Your task to perform on an android device: Go to battery settings Image 0: 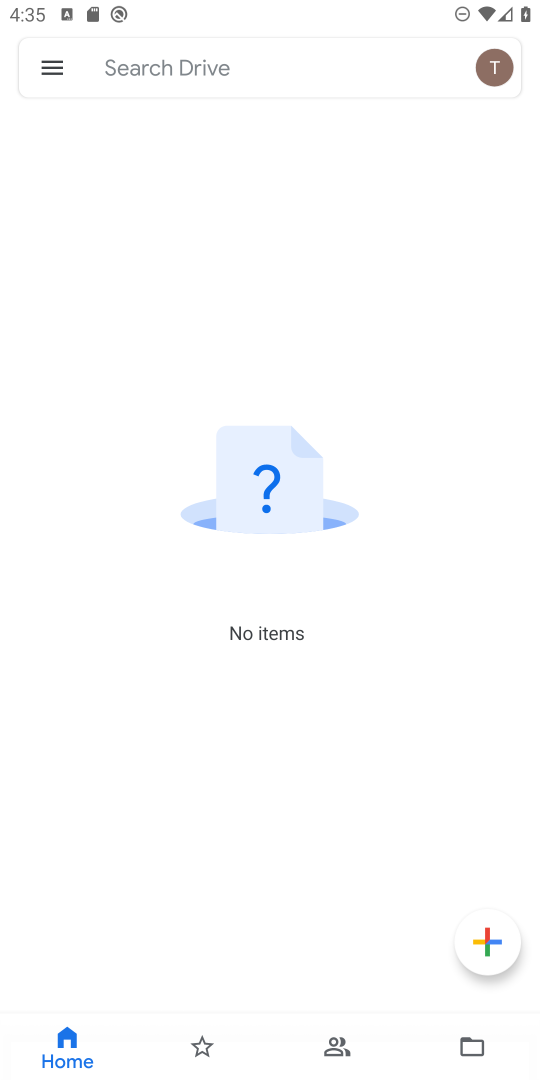
Step 0: press home button
Your task to perform on an android device: Go to battery settings Image 1: 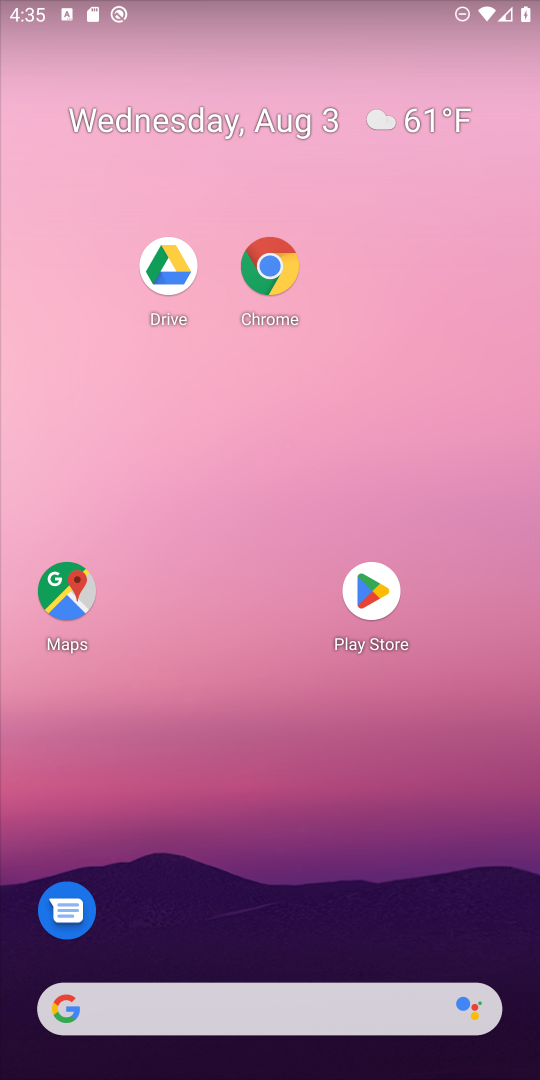
Step 1: drag from (226, 1006) to (422, 1)
Your task to perform on an android device: Go to battery settings Image 2: 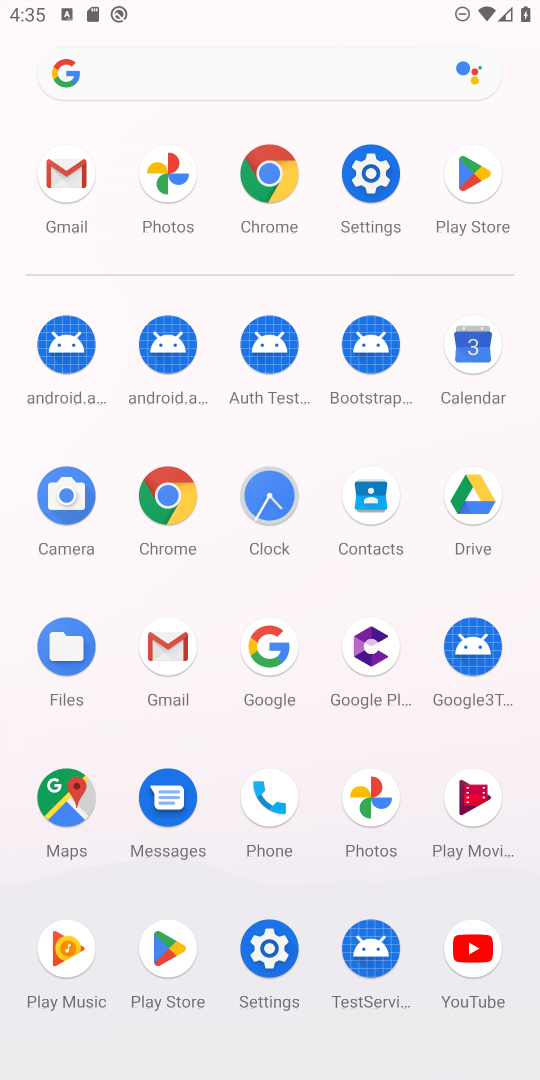
Step 2: click (368, 174)
Your task to perform on an android device: Go to battery settings Image 3: 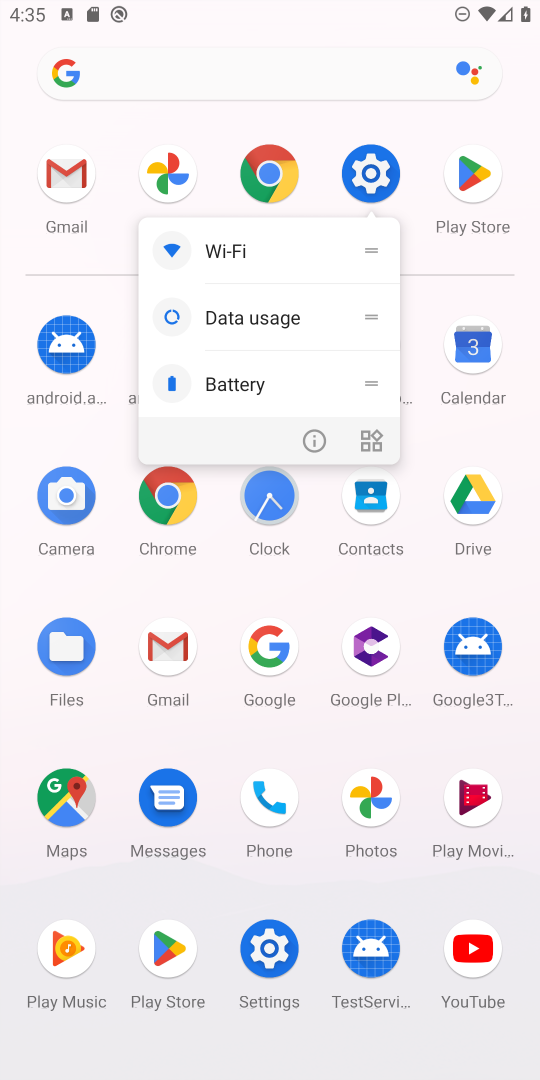
Step 3: click (368, 174)
Your task to perform on an android device: Go to battery settings Image 4: 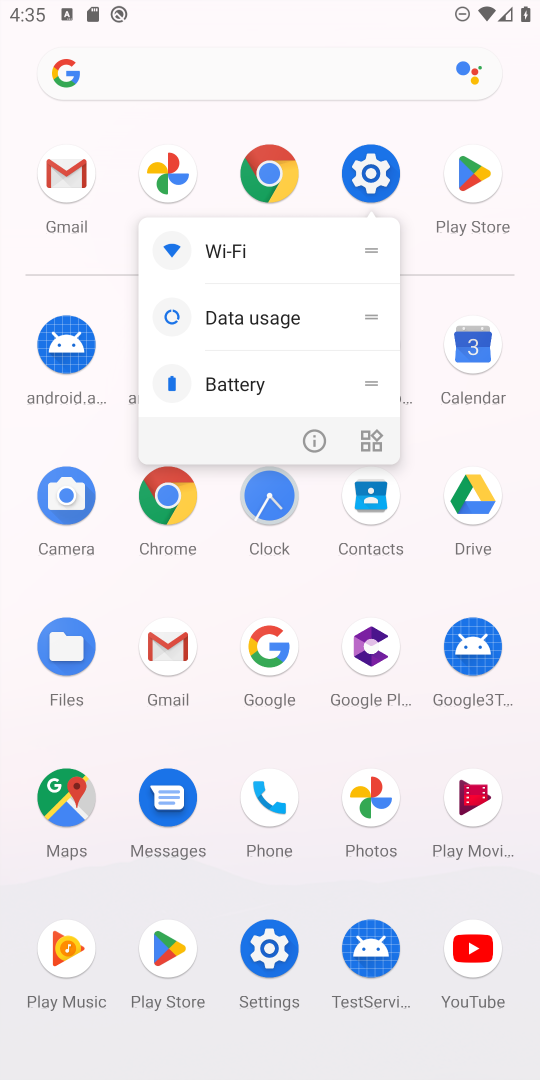
Step 4: click (368, 174)
Your task to perform on an android device: Go to battery settings Image 5: 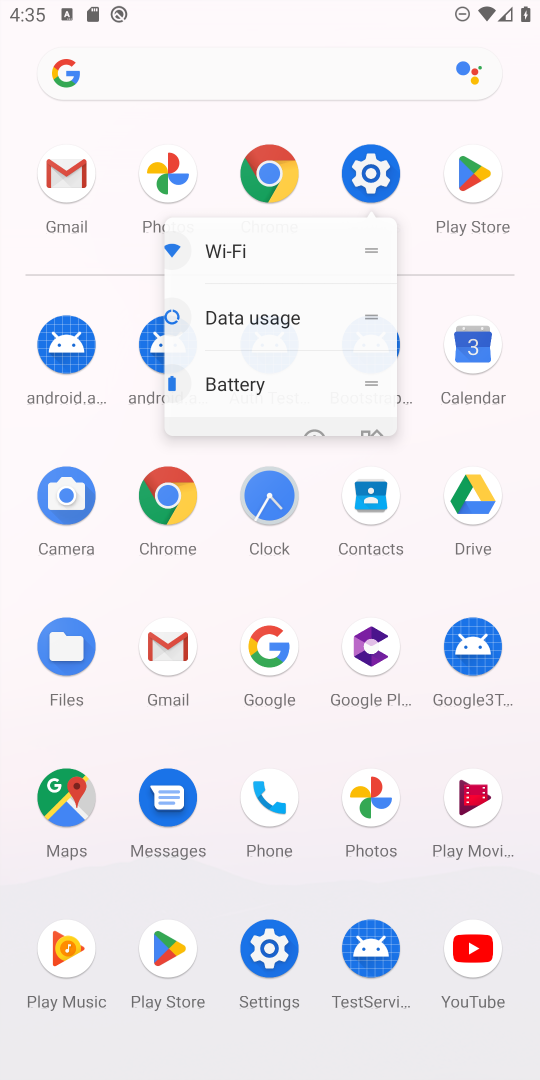
Step 5: click (368, 174)
Your task to perform on an android device: Go to battery settings Image 6: 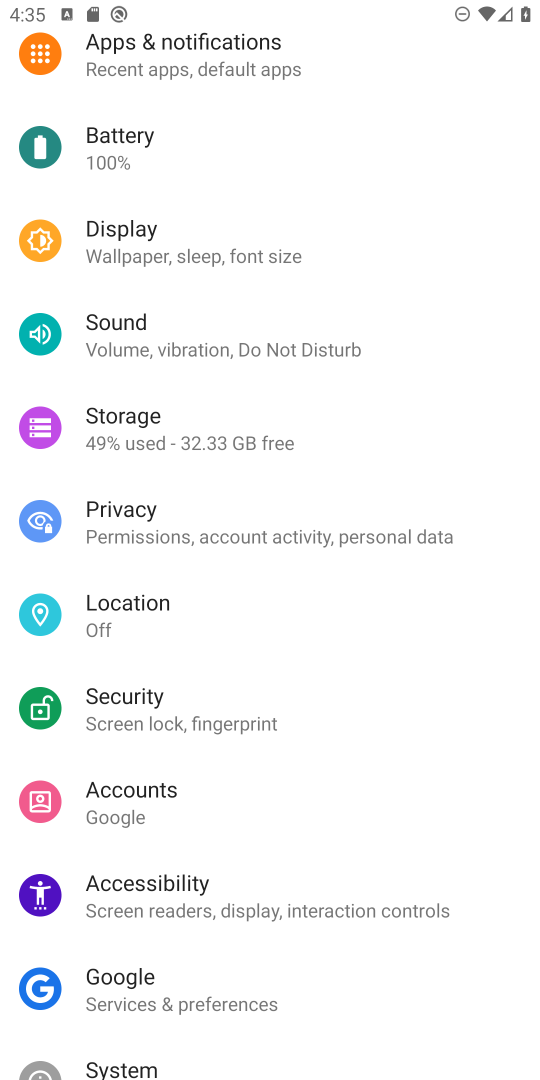
Step 6: click (147, 155)
Your task to perform on an android device: Go to battery settings Image 7: 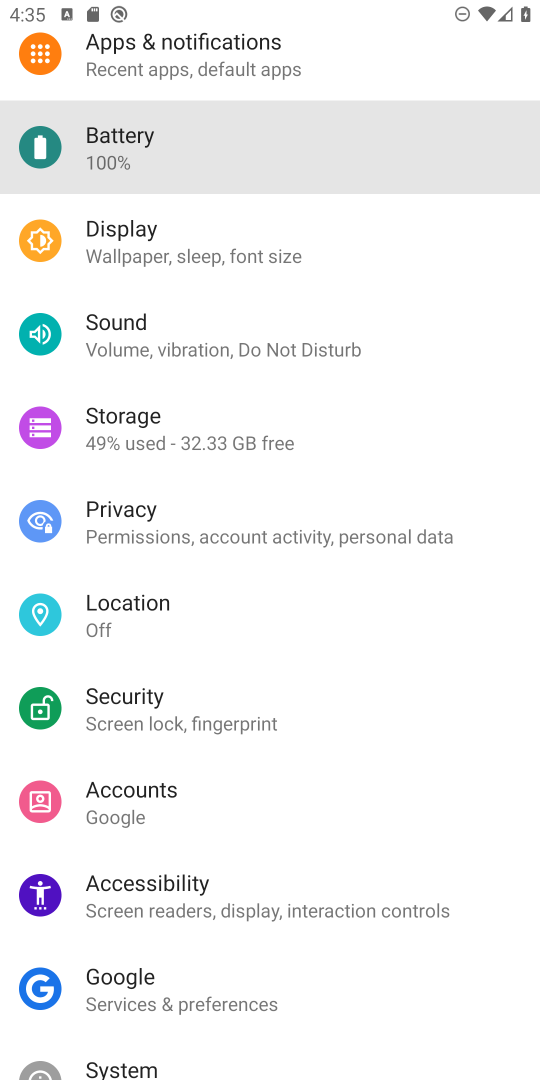
Step 7: click (147, 155)
Your task to perform on an android device: Go to battery settings Image 8: 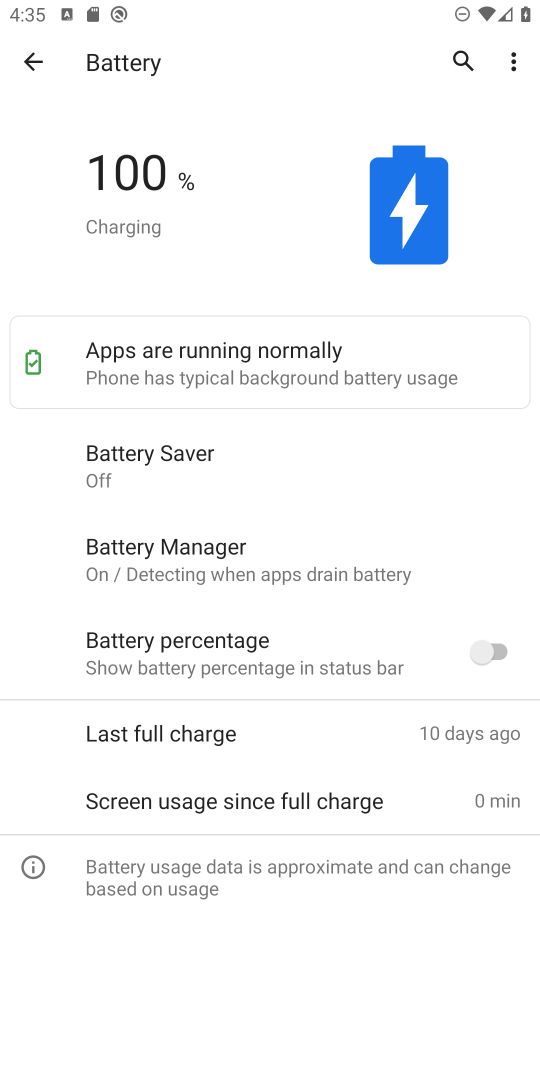
Step 8: task complete